Your task to perform on an android device: add a contact Image 0: 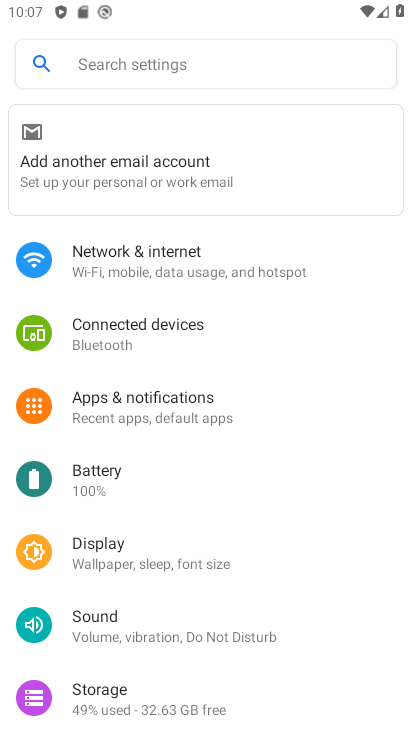
Step 0: click (116, 623)
Your task to perform on an android device: add a contact Image 1: 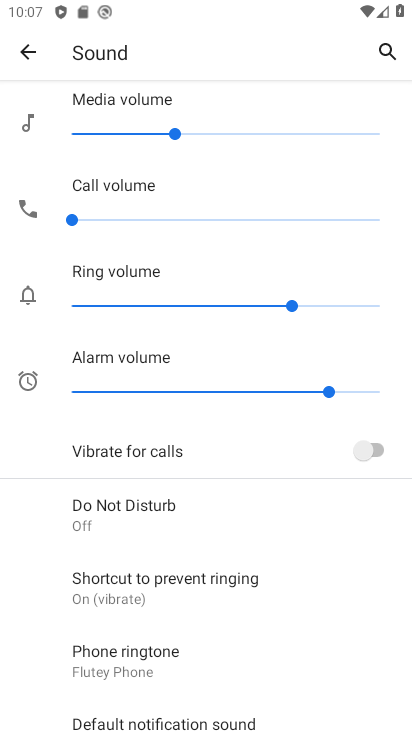
Step 1: click (157, 510)
Your task to perform on an android device: add a contact Image 2: 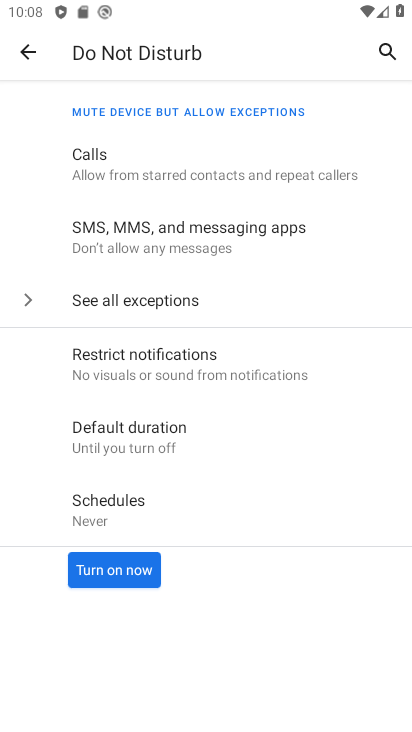
Step 2: press home button
Your task to perform on an android device: add a contact Image 3: 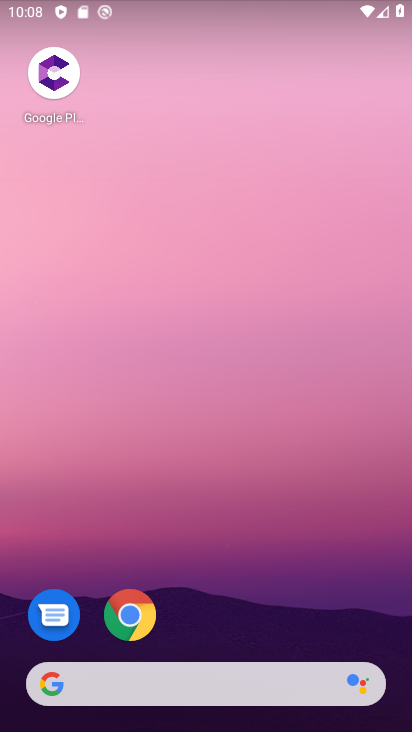
Step 3: drag from (244, 623) to (206, 35)
Your task to perform on an android device: add a contact Image 4: 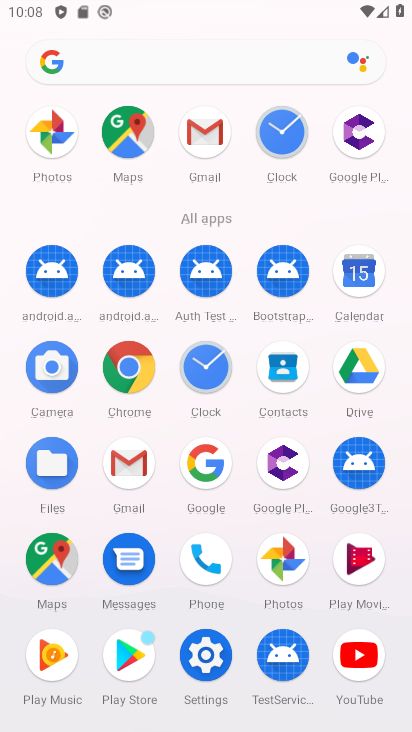
Step 4: click (284, 374)
Your task to perform on an android device: add a contact Image 5: 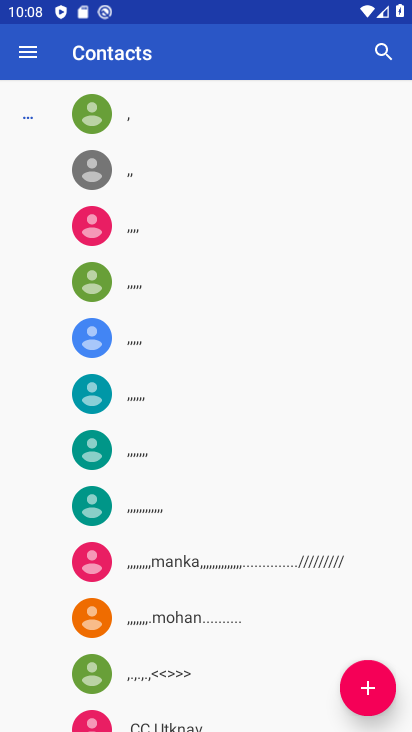
Step 5: click (364, 690)
Your task to perform on an android device: add a contact Image 6: 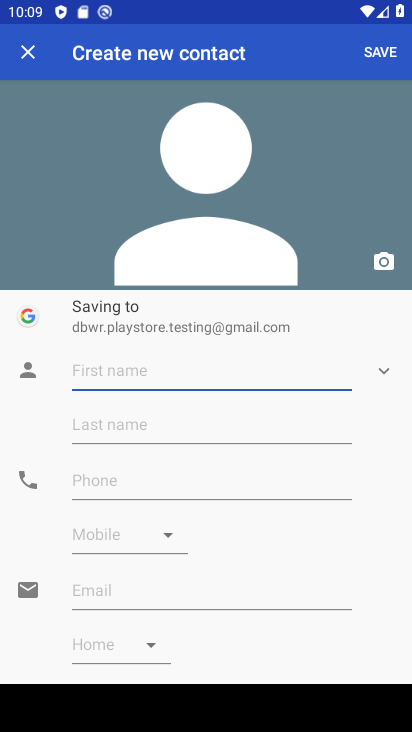
Step 6: type "ffffgdfdgg"
Your task to perform on an android device: add a contact Image 7: 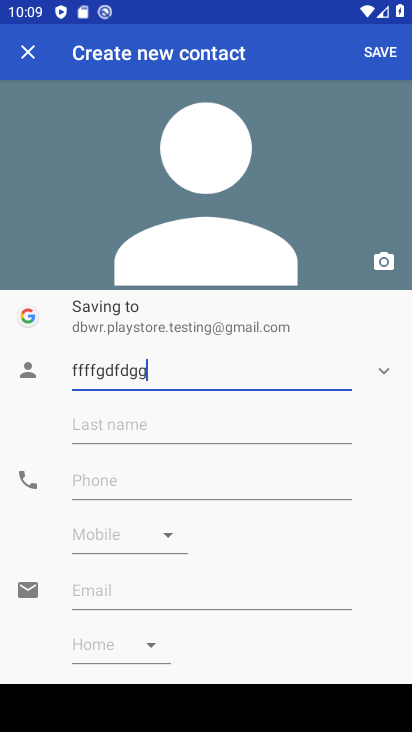
Step 7: click (174, 486)
Your task to perform on an android device: add a contact Image 8: 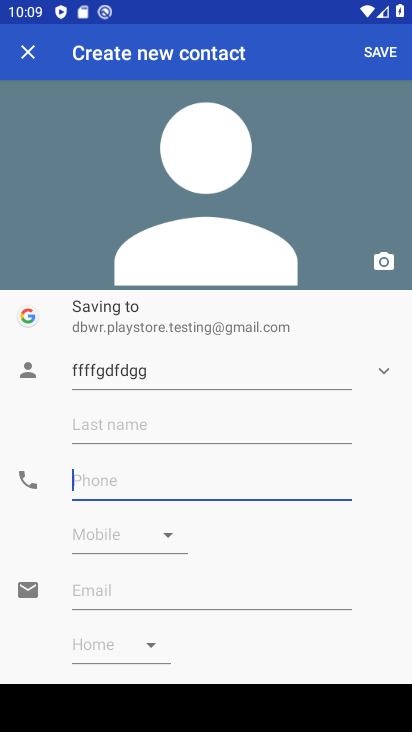
Step 8: type "456766"
Your task to perform on an android device: add a contact Image 9: 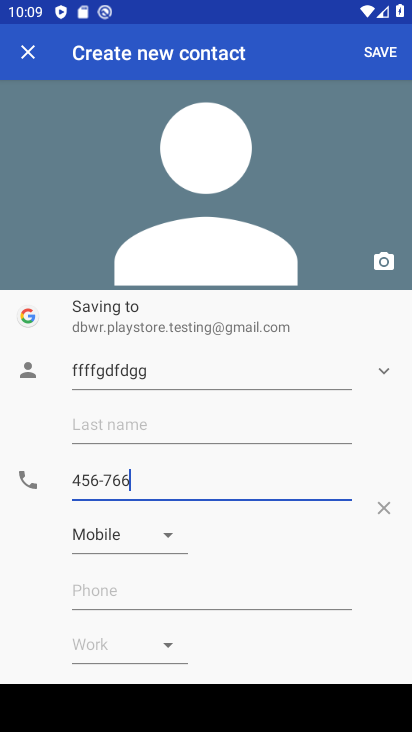
Step 9: click (387, 51)
Your task to perform on an android device: add a contact Image 10: 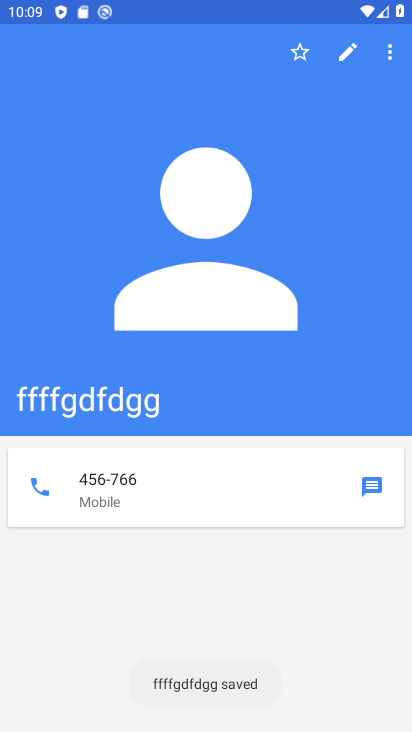
Step 10: task complete